Your task to perform on an android device: read, delete, or share a saved page in the chrome app Image 0: 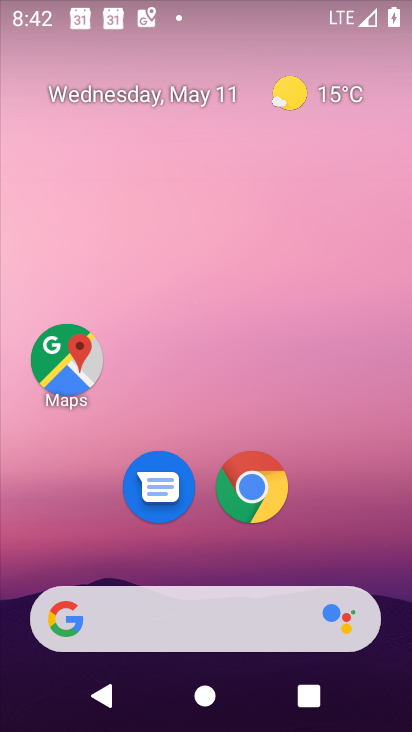
Step 0: drag from (263, 654) to (219, 150)
Your task to perform on an android device: read, delete, or share a saved page in the chrome app Image 1: 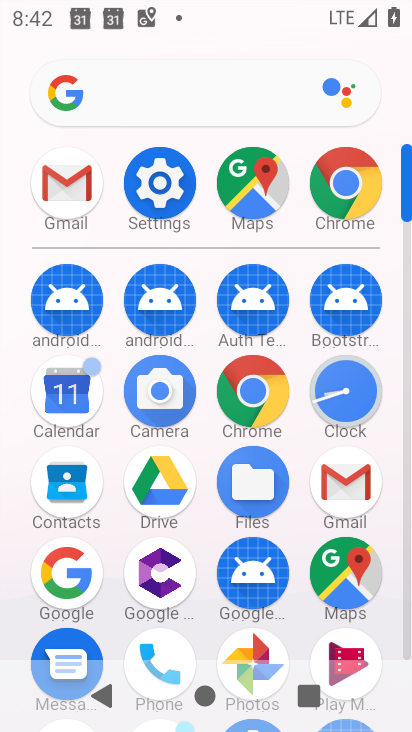
Step 1: click (373, 175)
Your task to perform on an android device: read, delete, or share a saved page in the chrome app Image 2: 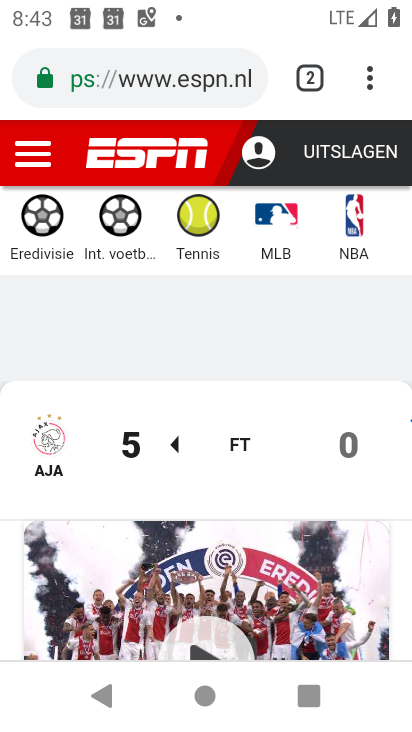
Step 2: click (370, 101)
Your task to perform on an android device: read, delete, or share a saved page in the chrome app Image 3: 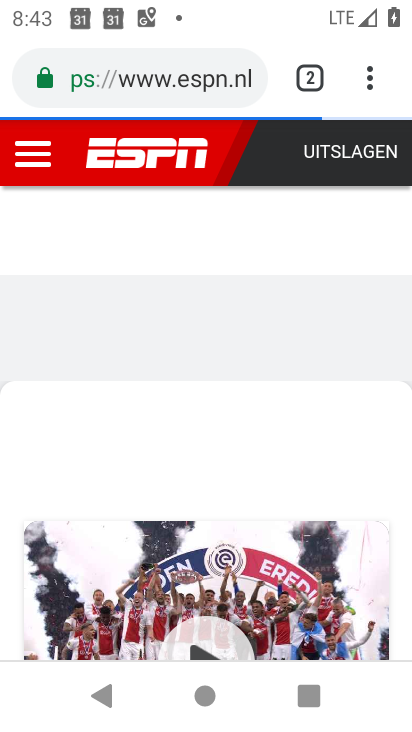
Step 3: click (366, 80)
Your task to perform on an android device: read, delete, or share a saved page in the chrome app Image 4: 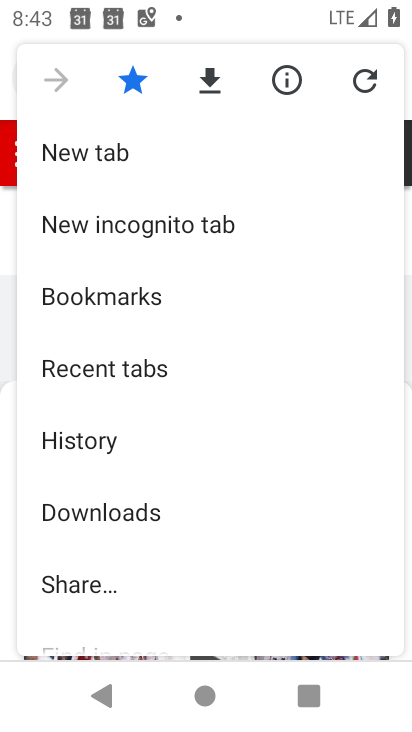
Step 4: click (113, 575)
Your task to perform on an android device: read, delete, or share a saved page in the chrome app Image 5: 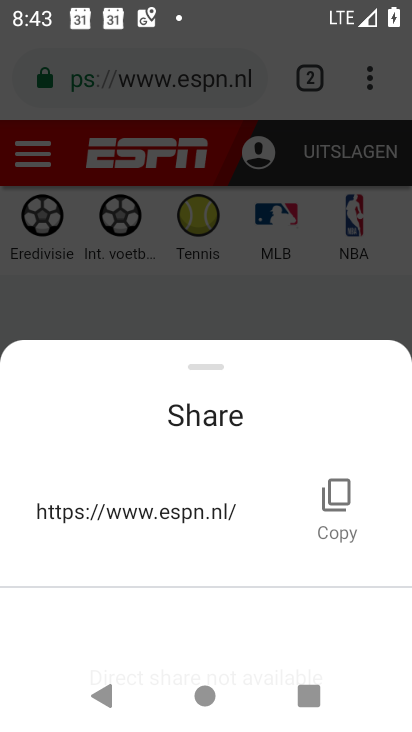
Step 5: task complete